Your task to perform on an android device: open a new tab in the chrome app Image 0: 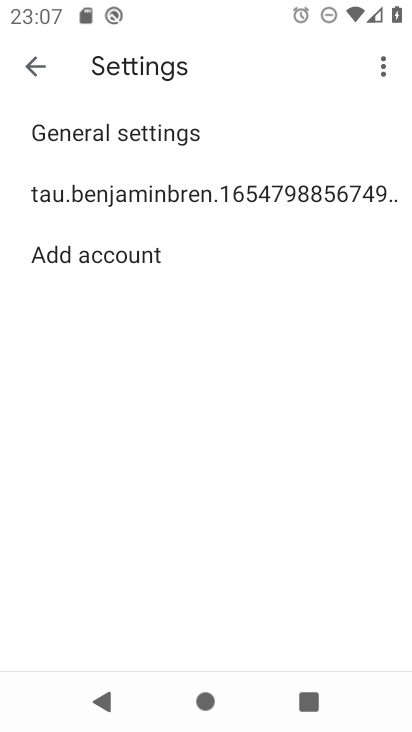
Step 0: press home button
Your task to perform on an android device: open a new tab in the chrome app Image 1: 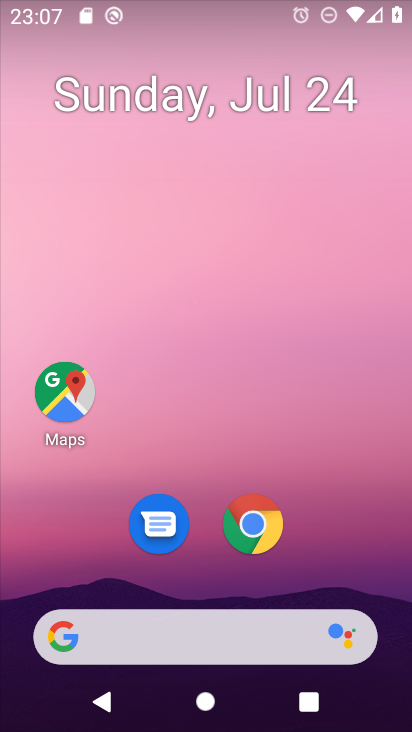
Step 1: click (266, 525)
Your task to perform on an android device: open a new tab in the chrome app Image 2: 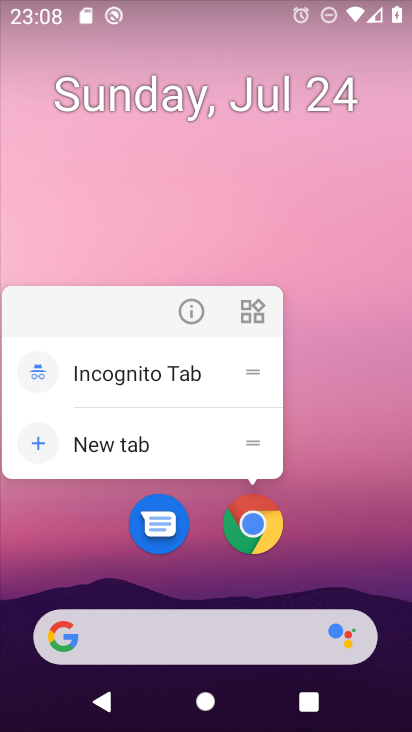
Step 2: click (247, 525)
Your task to perform on an android device: open a new tab in the chrome app Image 3: 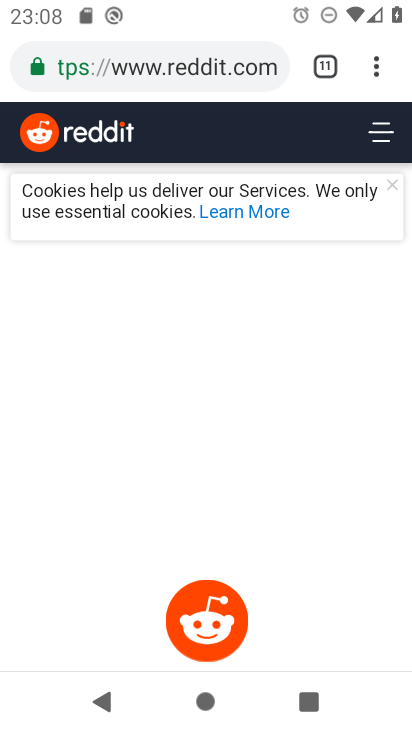
Step 3: task complete